Your task to perform on an android device: turn off picture-in-picture Image 0: 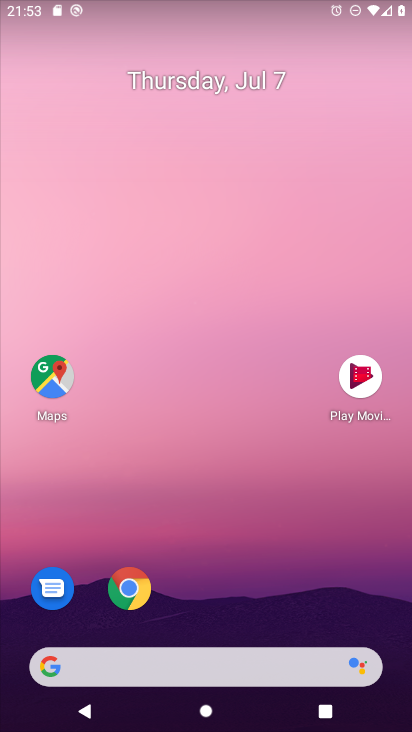
Step 0: drag from (238, 622) to (242, 275)
Your task to perform on an android device: turn off picture-in-picture Image 1: 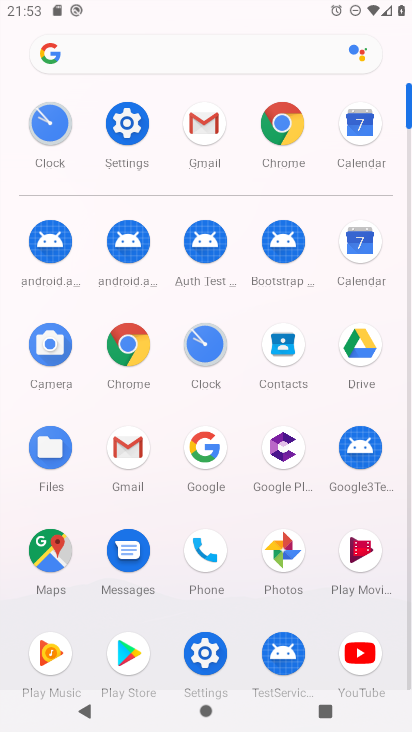
Step 1: click (130, 114)
Your task to perform on an android device: turn off picture-in-picture Image 2: 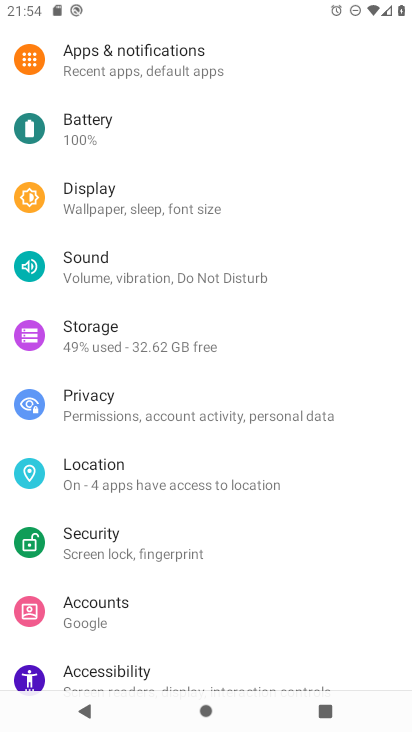
Step 2: drag from (158, 55) to (180, 374)
Your task to perform on an android device: turn off picture-in-picture Image 3: 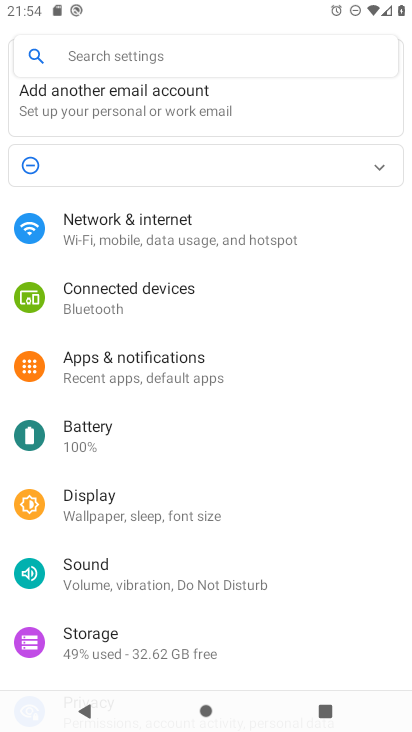
Step 3: click (127, 369)
Your task to perform on an android device: turn off picture-in-picture Image 4: 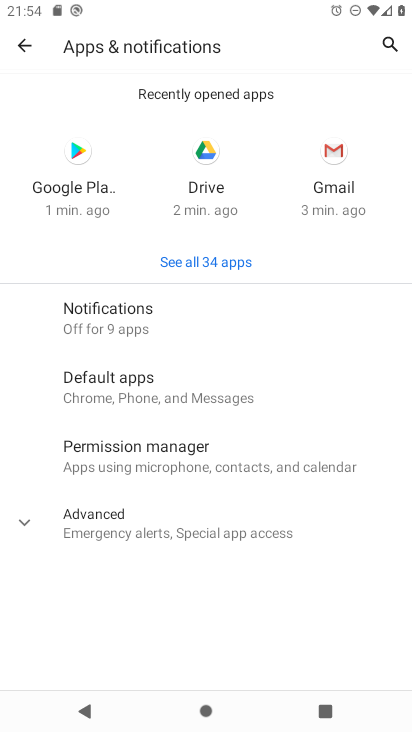
Step 4: click (136, 517)
Your task to perform on an android device: turn off picture-in-picture Image 5: 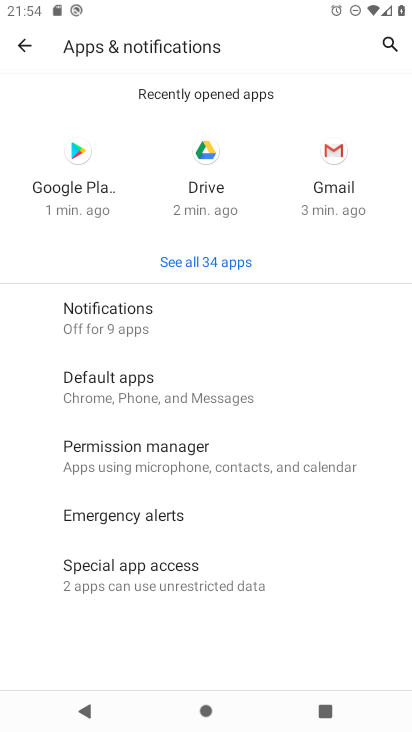
Step 5: click (146, 576)
Your task to perform on an android device: turn off picture-in-picture Image 6: 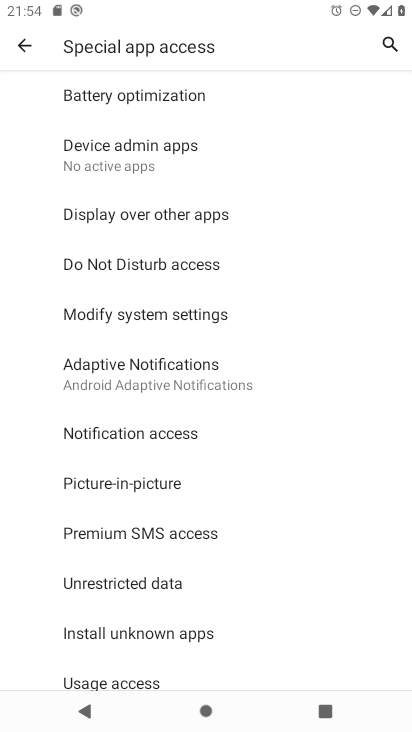
Step 6: drag from (188, 524) to (230, 113)
Your task to perform on an android device: turn off picture-in-picture Image 7: 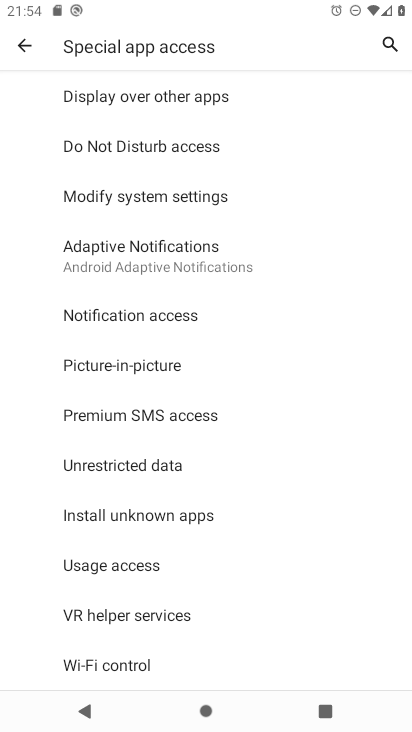
Step 7: drag from (195, 167) to (221, 644)
Your task to perform on an android device: turn off picture-in-picture Image 8: 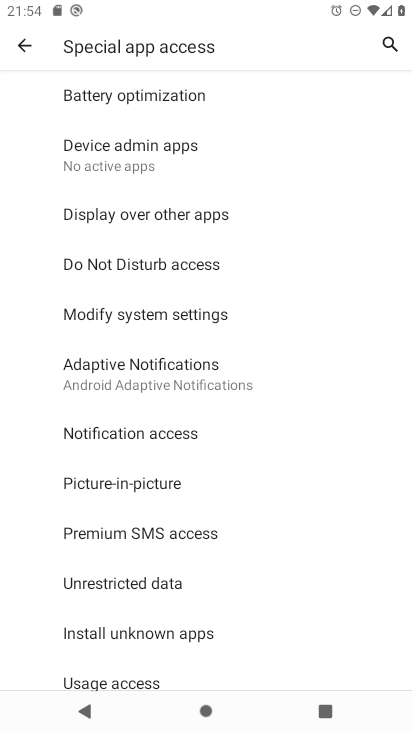
Step 8: click (199, 486)
Your task to perform on an android device: turn off picture-in-picture Image 9: 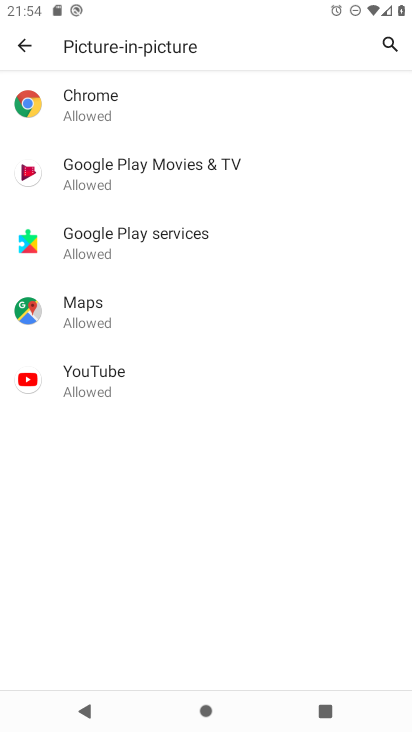
Step 9: click (88, 398)
Your task to perform on an android device: turn off picture-in-picture Image 10: 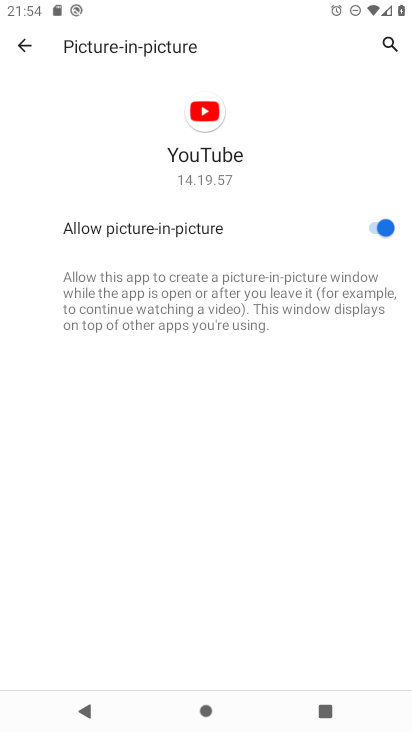
Step 10: click (391, 234)
Your task to perform on an android device: turn off picture-in-picture Image 11: 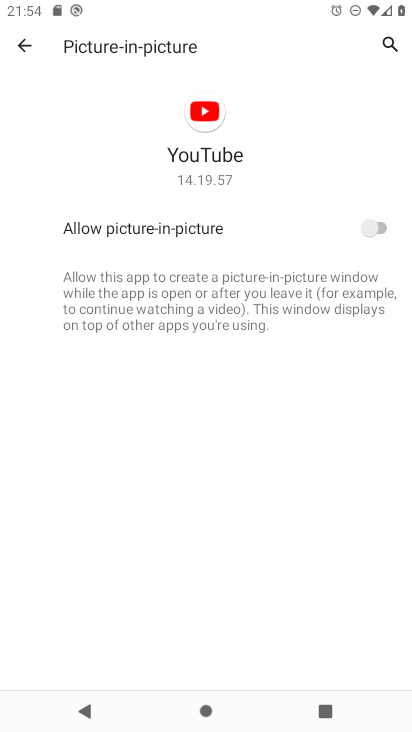
Step 11: task complete